Your task to perform on an android device: What's the weather going to be this weekend? Image 0: 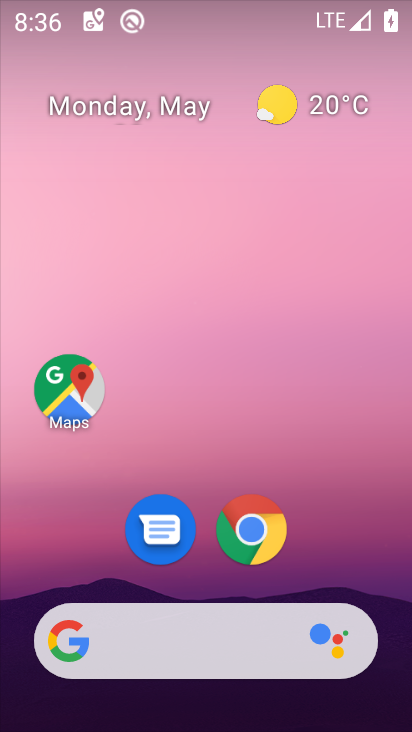
Step 0: drag from (44, 565) to (242, 161)
Your task to perform on an android device: What's the weather going to be this weekend? Image 1: 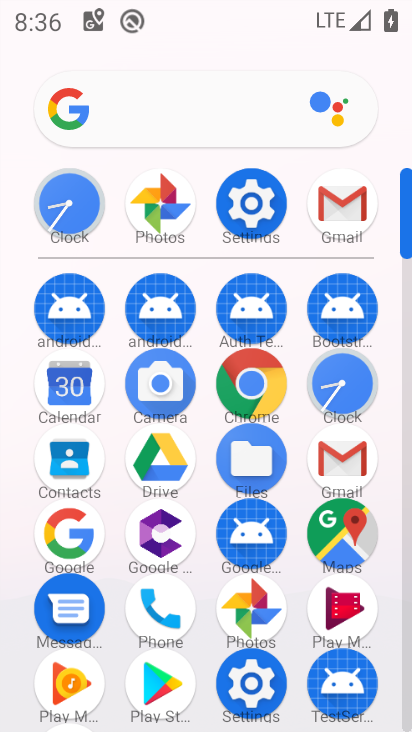
Step 1: click (75, 379)
Your task to perform on an android device: What's the weather going to be this weekend? Image 2: 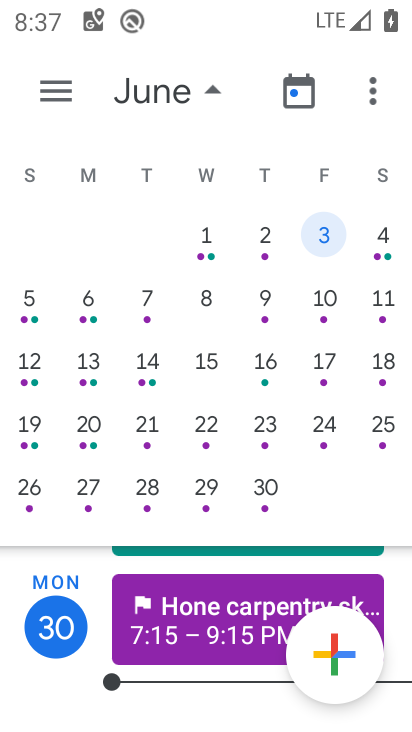
Step 2: task complete